Your task to perform on an android device: create a new album in the google photos Image 0: 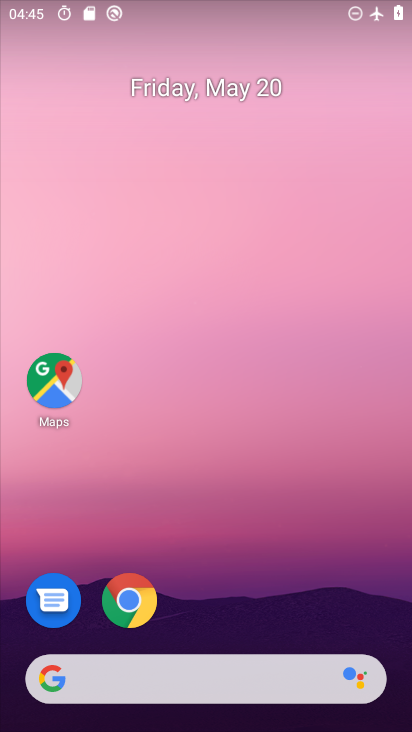
Step 0: drag from (214, 620) to (312, 123)
Your task to perform on an android device: create a new album in the google photos Image 1: 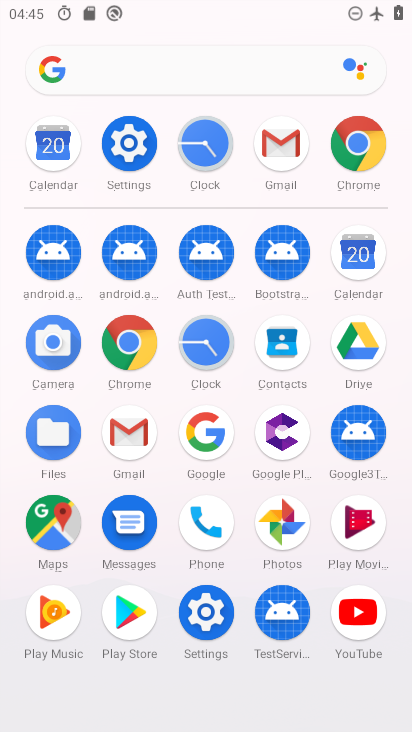
Step 1: click (276, 520)
Your task to perform on an android device: create a new album in the google photos Image 2: 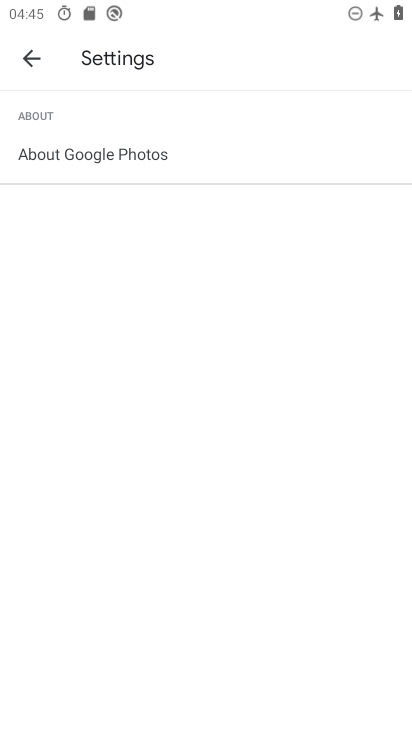
Step 2: click (26, 52)
Your task to perform on an android device: create a new album in the google photos Image 3: 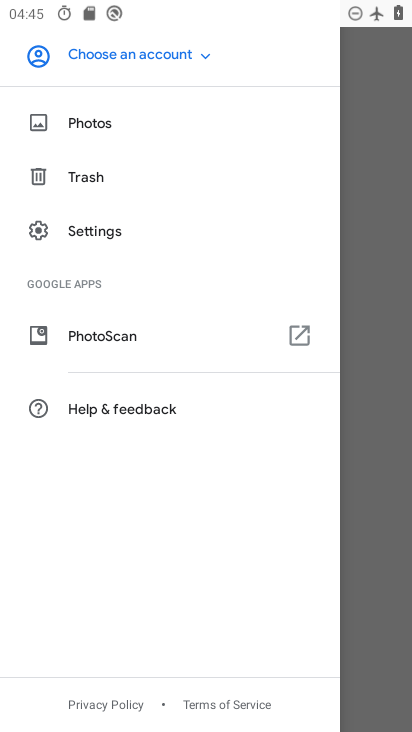
Step 3: press back button
Your task to perform on an android device: create a new album in the google photos Image 4: 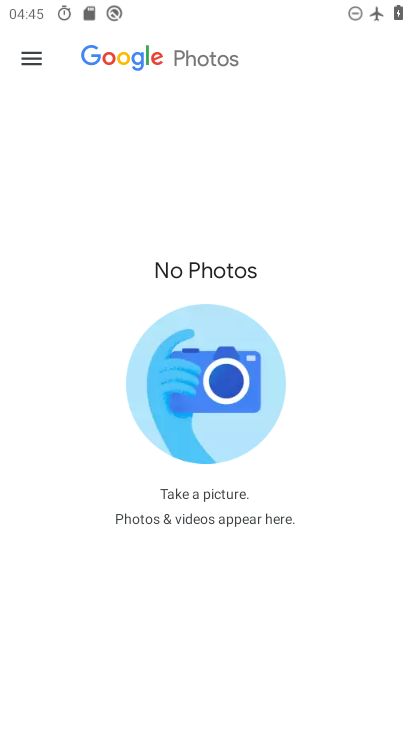
Step 4: click (34, 50)
Your task to perform on an android device: create a new album in the google photos Image 5: 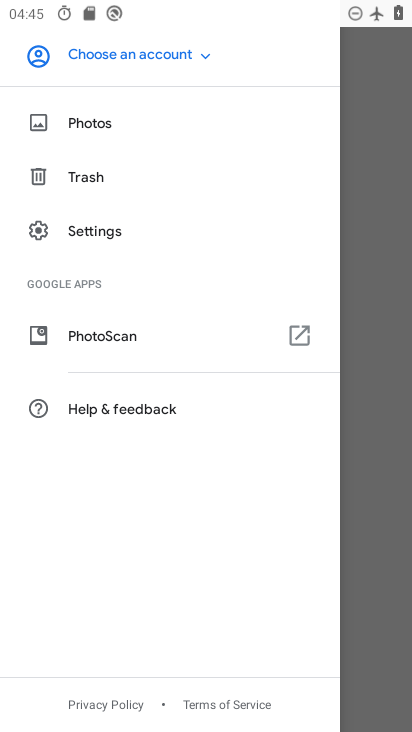
Step 5: task complete